Your task to perform on an android device: open app "Adobe Express: Graphic Design" (install if not already installed) Image 0: 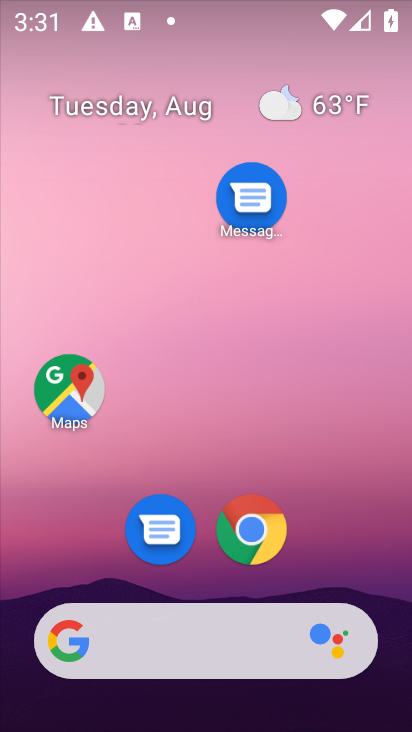
Step 0: drag from (329, 531) to (317, 11)
Your task to perform on an android device: open app "Adobe Express: Graphic Design" (install if not already installed) Image 1: 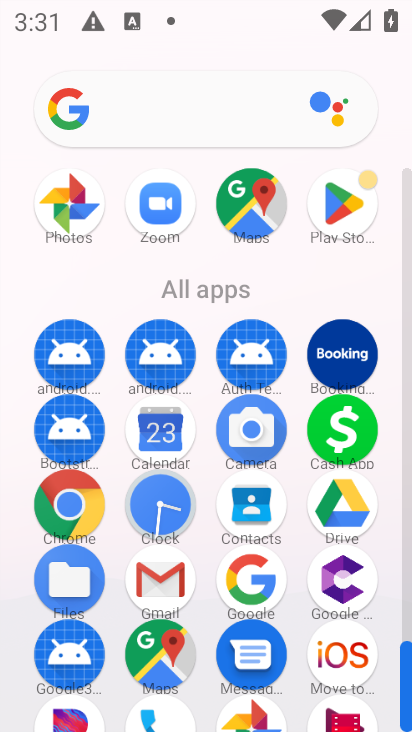
Step 1: click (347, 205)
Your task to perform on an android device: open app "Adobe Express: Graphic Design" (install if not already installed) Image 2: 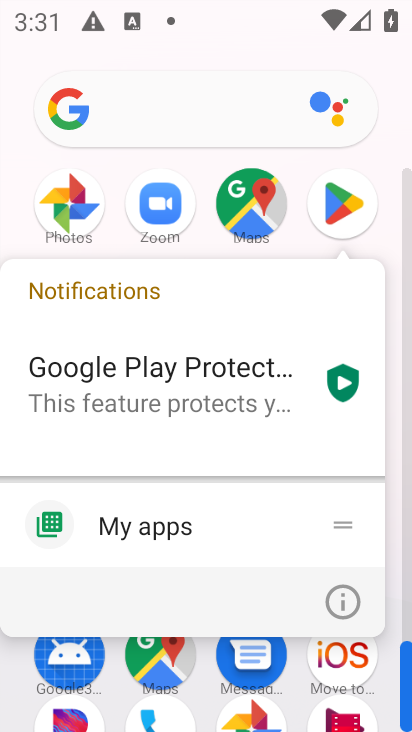
Step 2: click (363, 213)
Your task to perform on an android device: open app "Adobe Express: Graphic Design" (install if not already installed) Image 3: 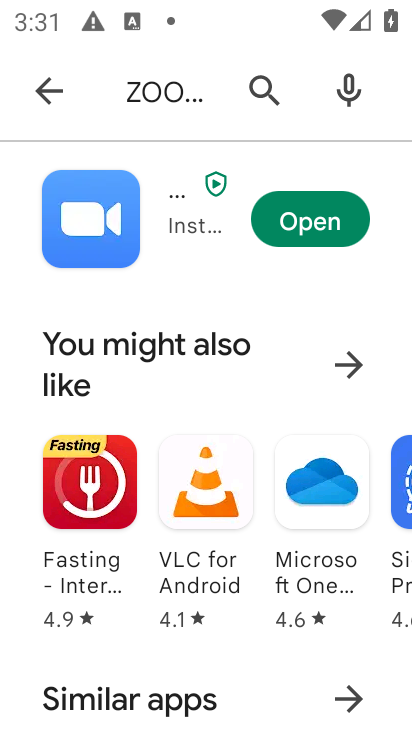
Step 3: press back button
Your task to perform on an android device: open app "Adobe Express: Graphic Design" (install if not already installed) Image 4: 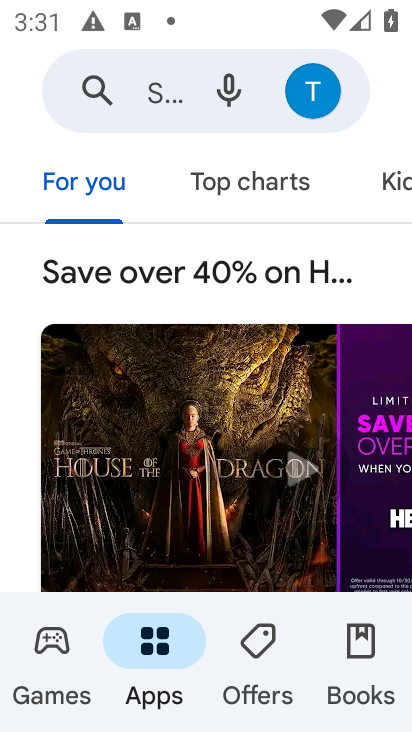
Step 4: click (130, 96)
Your task to perform on an android device: open app "Adobe Express: Graphic Design" (install if not already installed) Image 5: 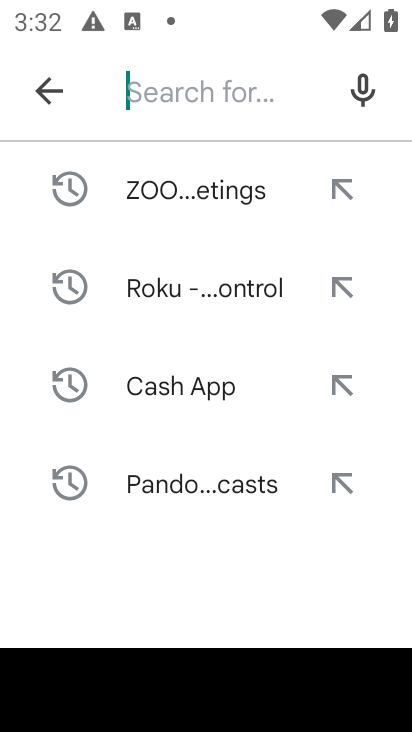
Step 5: type "Adobe Express: Graphic Design"
Your task to perform on an android device: open app "Adobe Express: Graphic Design" (install if not already installed) Image 6: 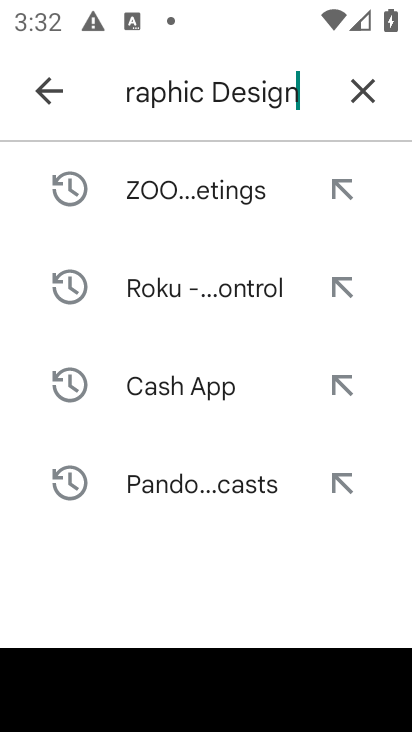
Step 6: press enter
Your task to perform on an android device: open app "Adobe Express: Graphic Design" (install if not already installed) Image 7: 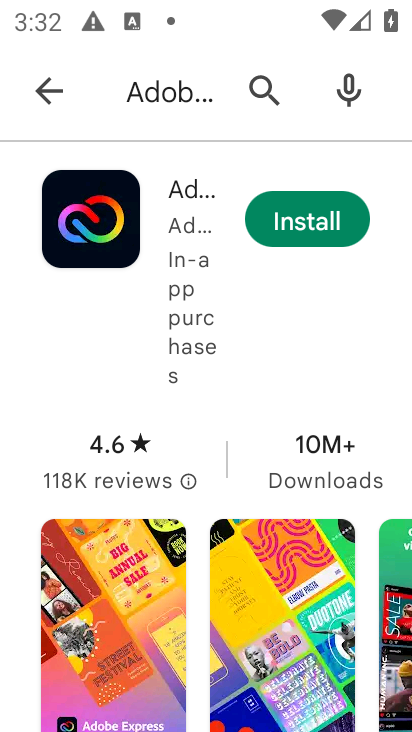
Step 7: click (310, 227)
Your task to perform on an android device: open app "Adobe Express: Graphic Design" (install if not already installed) Image 8: 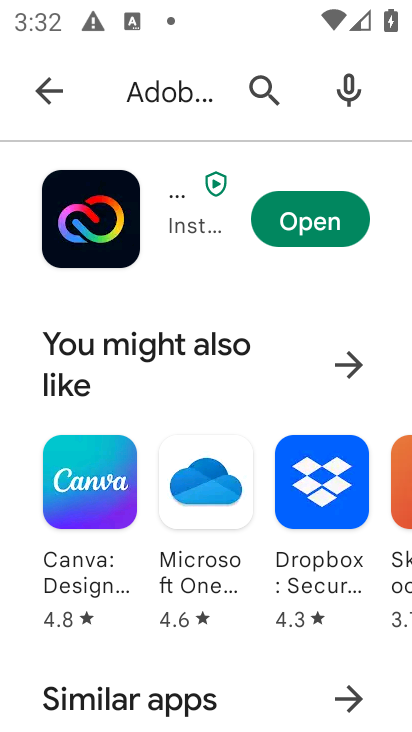
Step 8: click (346, 225)
Your task to perform on an android device: open app "Adobe Express: Graphic Design" (install if not already installed) Image 9: 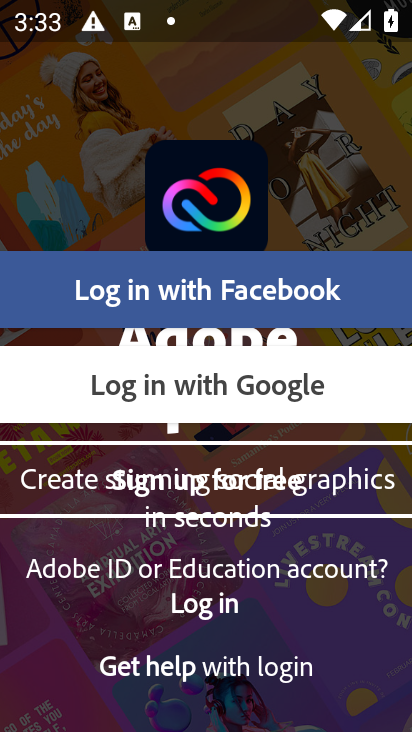
Step 9: task complete